Your task to perform on an android device: Open the Play Movies app and select the watchlist tab. Image 0: 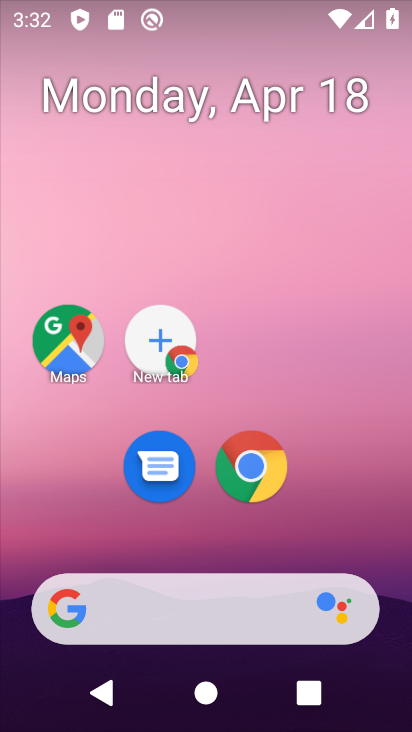
Step 0: drag from (354, 499) to (282, 3)
Your task to perform on an android device: Open the Play Movies app and select the watchlist tab. Image 1: 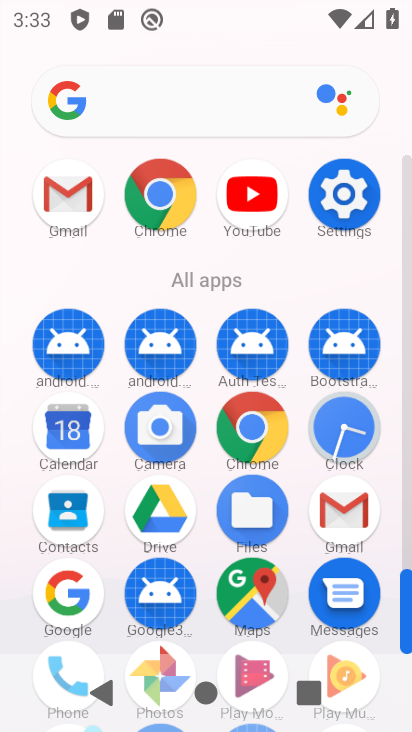
Step 1: drag from (10, 506) to (1, 293)
Your task to perform on an android device: Open the Play Movies app and select the watchlist tab. Image 2: 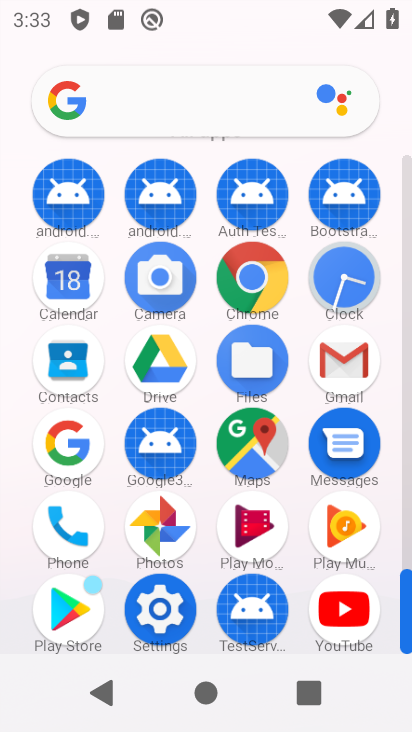
Step 2: click (254, 520)
Your task to perform on an android device: Open the Play Movies app and select the watchlist tab. Image 3: 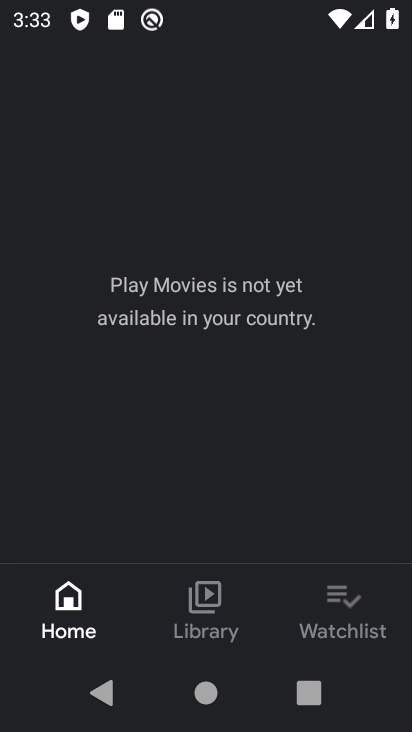
Step 3: click (357, 604)
Your task to perform on an android device: Open the Play Movies app and select the watchlist tab. Image 4: 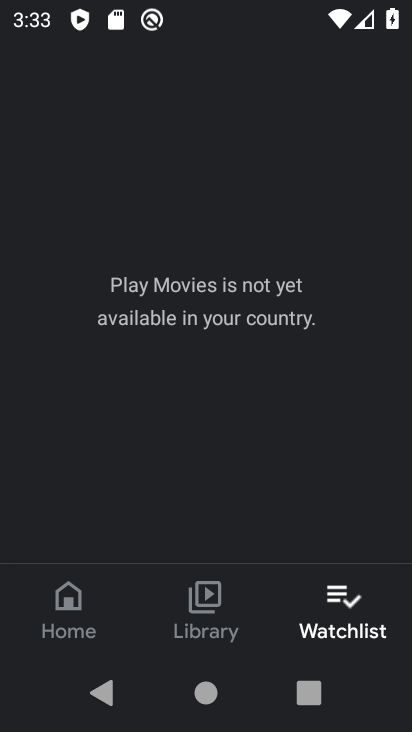
Step 4: task complete